Your task to perform on an android device: Open Google Chrome and open the bookmarks view Image 0: 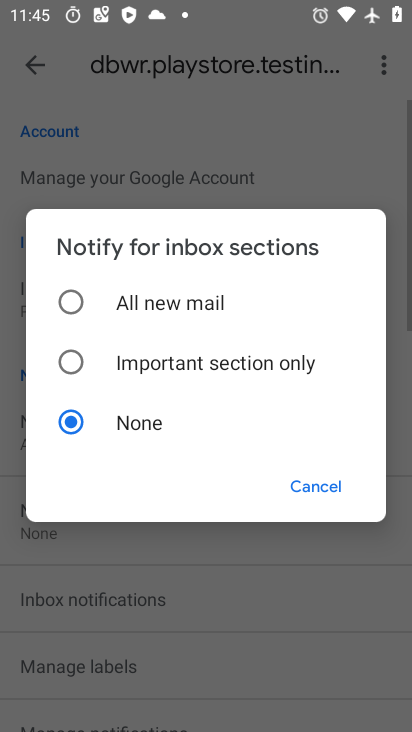
Step 0: click (326, 483)
Your task to perform on an android device: Open Google Chrome and open the bookmarks view Image 1: 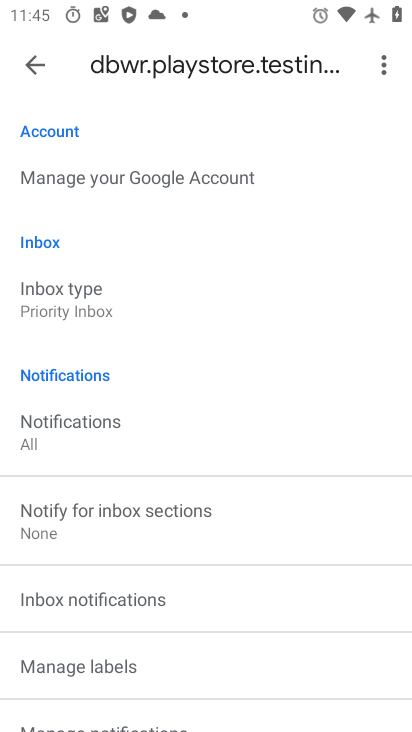
Step 1: click (327, 484)
Your task to perform on an android device: Open Google Chrome and open the bookmarks view Image 2: 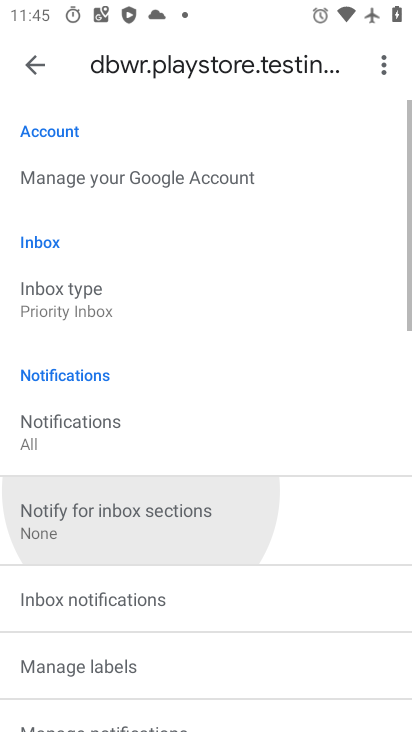
Step 2: click (328, 484)
Your task to perform on an android device: Open Google Chrome and open the bookmarks view Image 3: 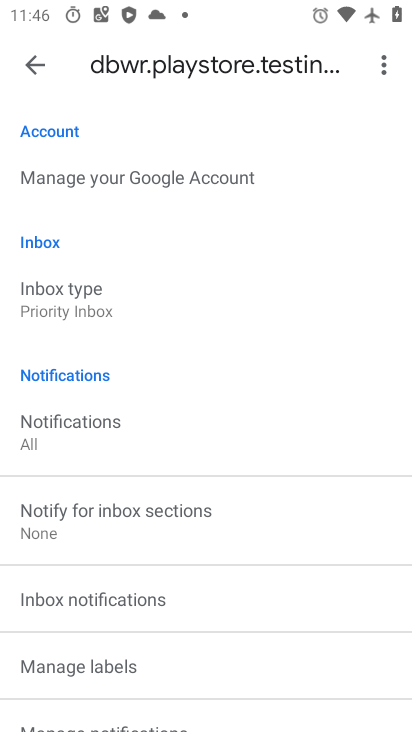
Step 3: drag from (376, 54) to (39, 75)
Your task to perform on an android device: Open Google Chrome and open the bookmarks view Image 4: 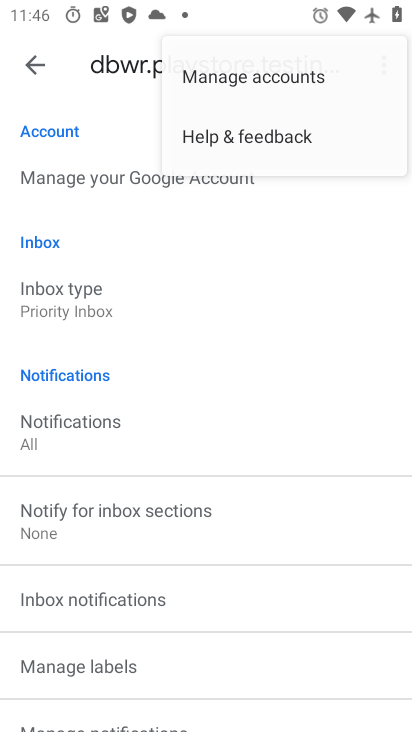
Step 4: click (39, 76)
Your task to perform on an android device: Open Google Chrome and open the bookmarks view Image 5: 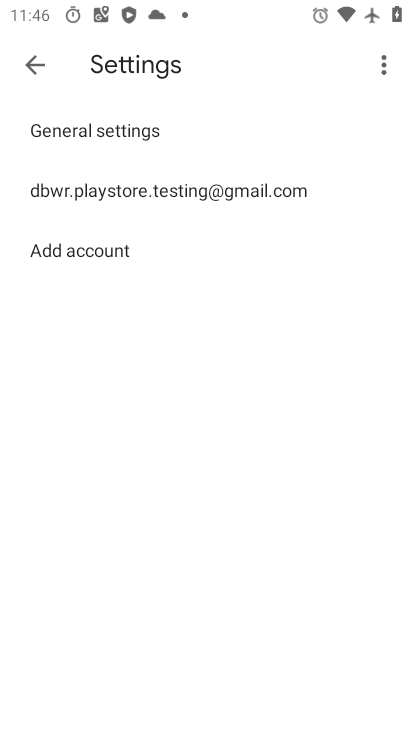
Step 5: drag from (384, 61) to (402, 162)
Your task to perform on an android device: Open Google Chrome and open the bookmarks view Image 6: 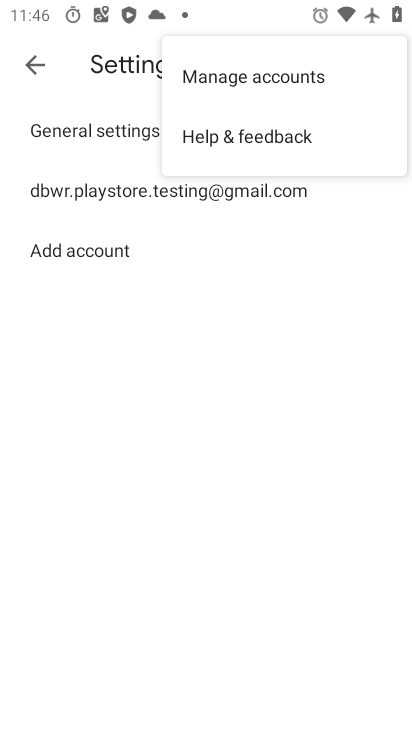
Step 6: press home button
Your task to perform on an android device: Open Google Chrome and open the bookmarks view Image 7: 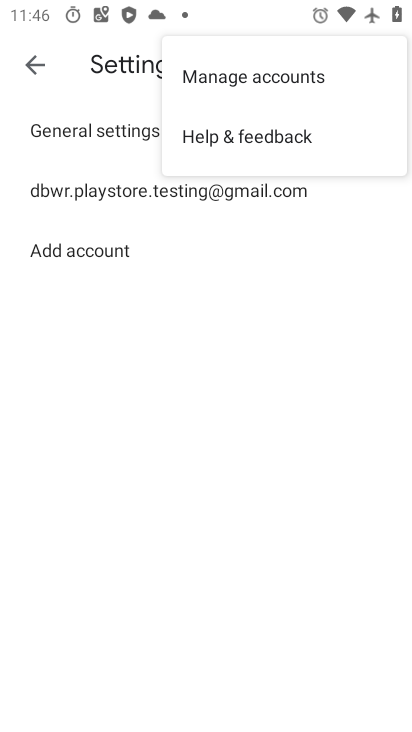
Step 7: press home button
Your task to perform on an android device: Open Google Chrome and open the bookmarks view Image 8: 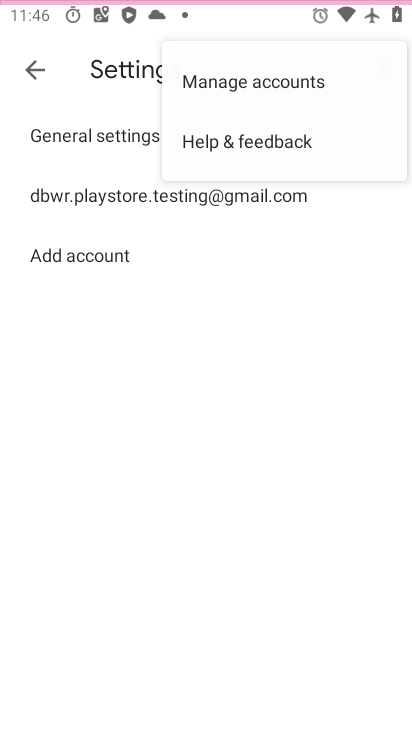
Step 8: click (382, 441)
Your task to perform on an android device: Open Google Chrome and open the bookmarks view Image 9: 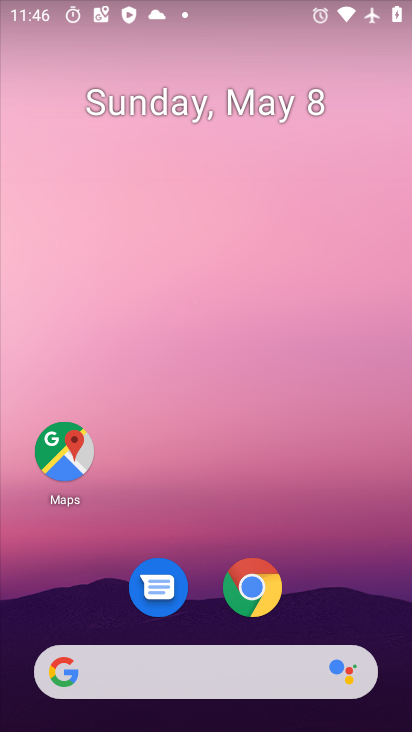
Step 9: drag from (325, 624) to (64, 159)
Your task to perform on an android device: Open Google Chrome and open the bookmarks view Image 10: 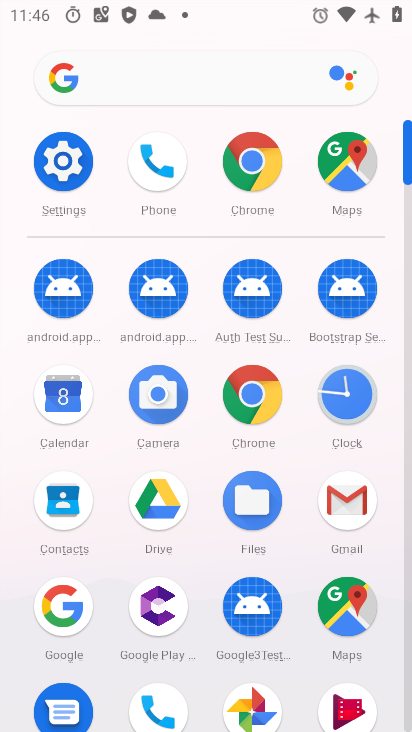
Step 10: click (208, 333)
Your task to perform on an android device: Open Google Chrome and open the bookmarks view Image 11: 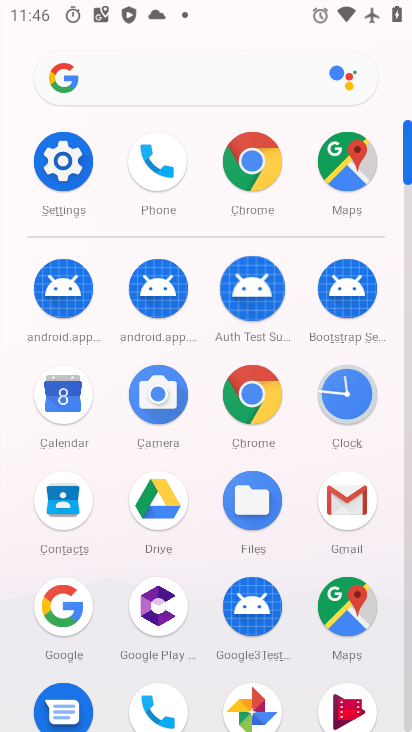
Step 11: click (252, 388)
Your task to perform on an android device: Open Google Chrome and open the bookmarks view Image 12: 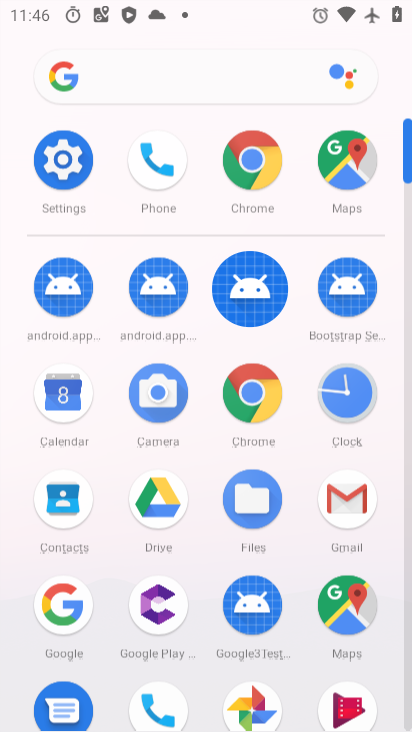
Step 12: click (252, 388)
Your task to perform on an android device: Open Google Chrome and open the bookmarks view Image 13: 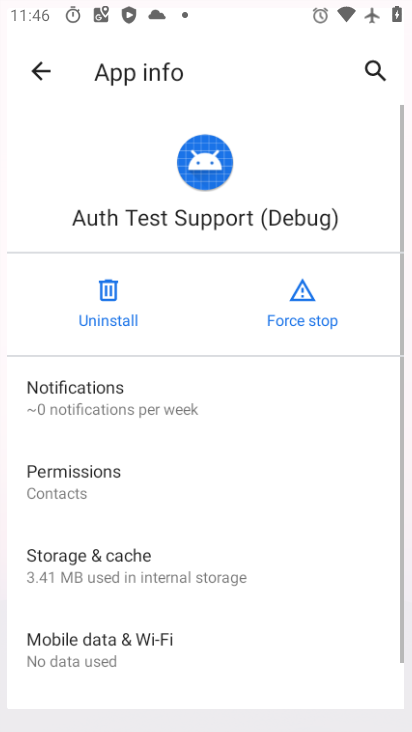
Step 13: click (252, 388)
Your task to perform on an android device: Open Google Chrome and open the bookmarks view Image 14: 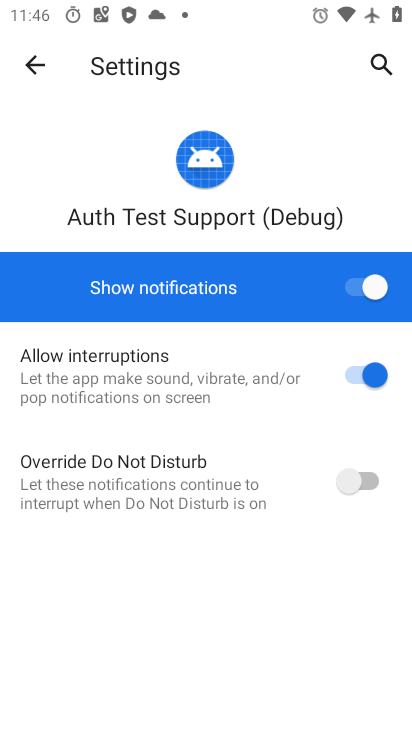
Step 14: click (32, 48)
Your task to perform on an android device: Open Google Chrome and open the bookmarks view Image 15: 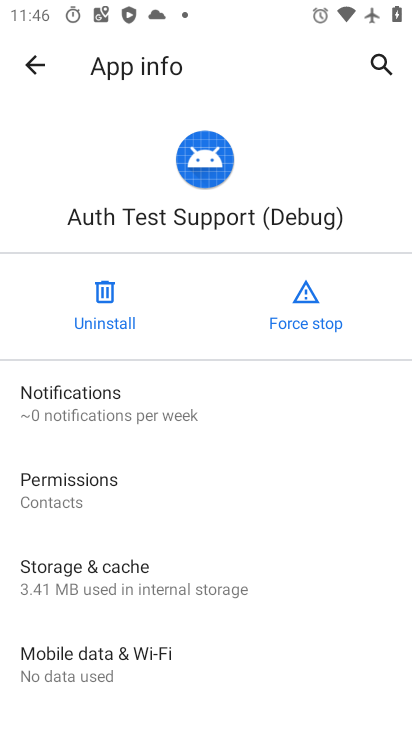
Step 15: click (45, 62)
Your task to perform on an android device: Open Google Chrome and open the bookmarks view Image 16: 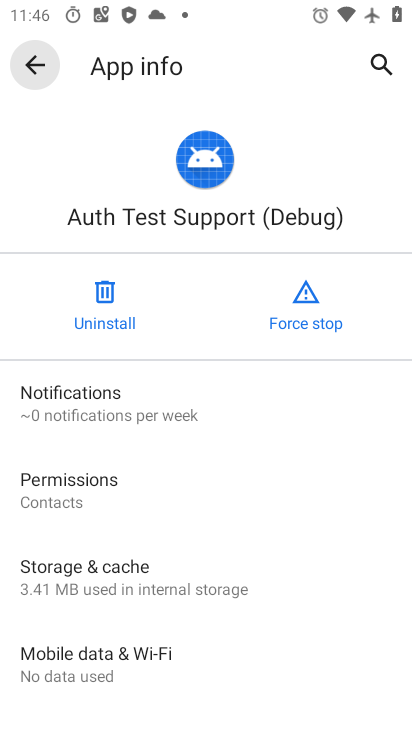
Step 16: click (45, 62)
Your task to perform on an android device: Open Google Chrome and open the bookmarks view Image 17: 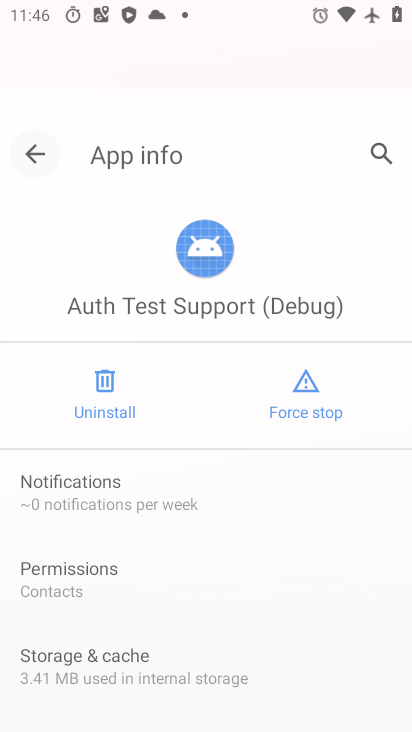
Step 17: click (45, 61)
Your task to perform on an android device: Open Google Chrome and open the bookmarks view Image 18: 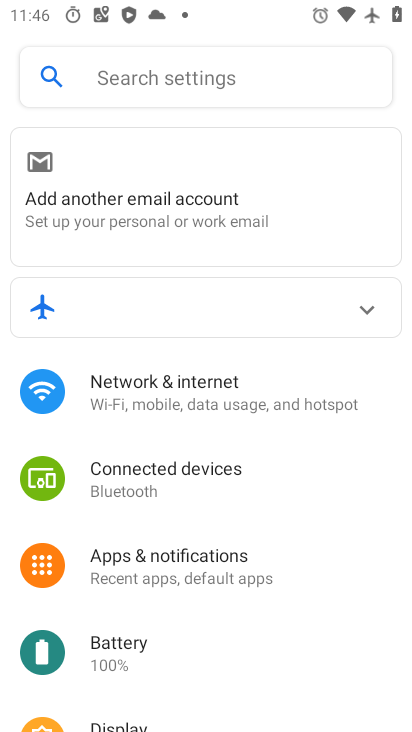
Step 18: press home button
Your task to perform on an android device: Open Google Chrome and open the bookmarks view Image 19: 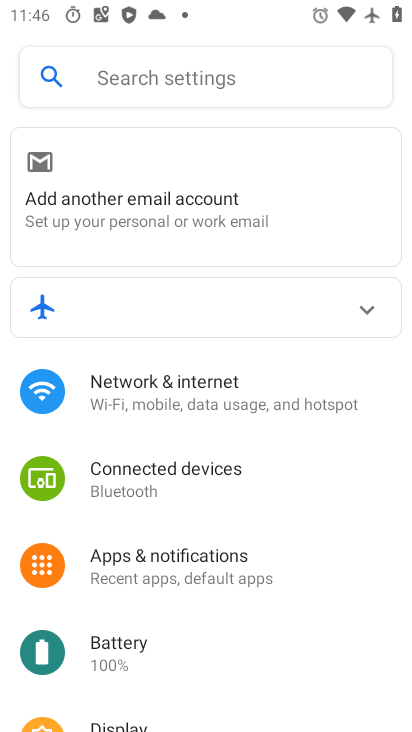
Step 19: press home button
Your task to perform on an android device: Open Google Chrome and open the bookmarks view Image 20: 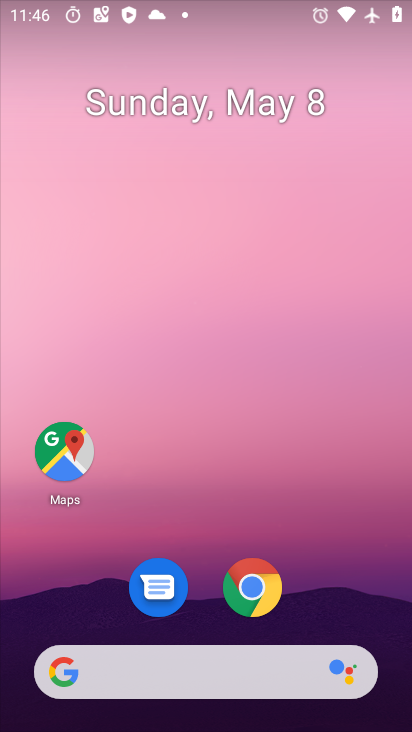
Step 20: drag from (345, 627) to (170, 8)
Your task to perform on an android device: Open Google Chrome and open the bookmarks view Image 21: 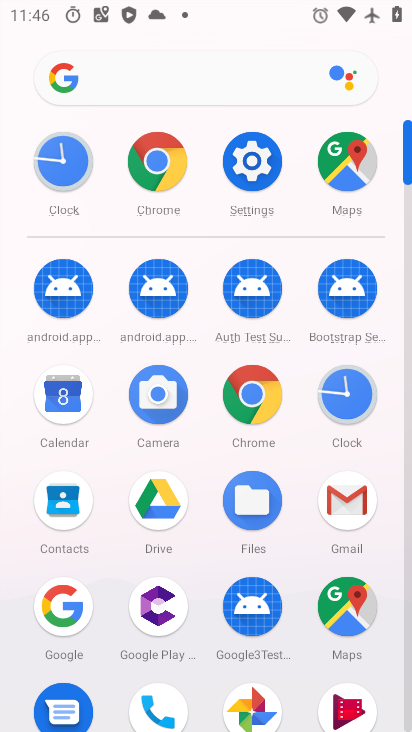
Step 21: click (162, 167)
Your task to perform on an android device: Open Google Chrome and open the bookmarks view Image 22: 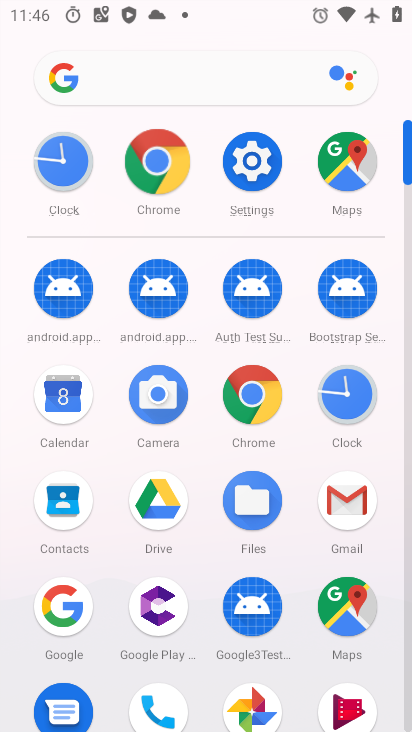
Step 22: click (163, 164)
Your task to perform on an android device: Open Google Chrome and open the bookmarks view Image 23: 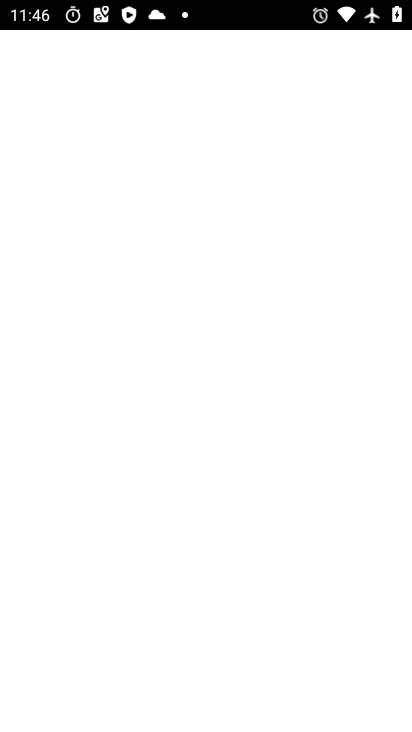
Step 23: click (163, 164)
Your task to perform on an android device: Open Google Chrome and open the bookmarks view Image 24: 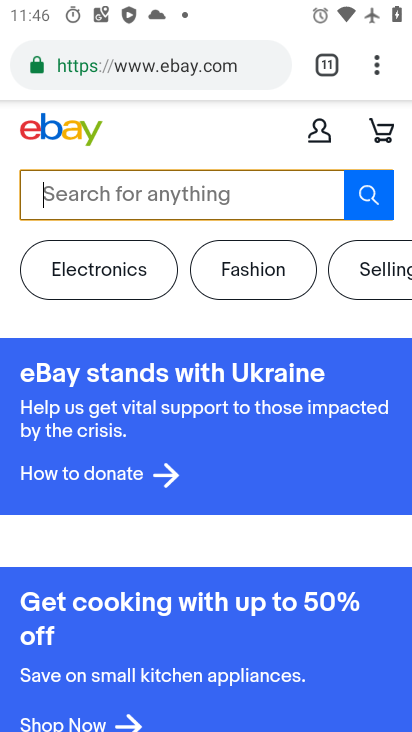
Step 24: drag from (378, 65) to (138, 255)
Your task to perform on an android device: Open Google Chrome and open the bookmarks view Image 25: 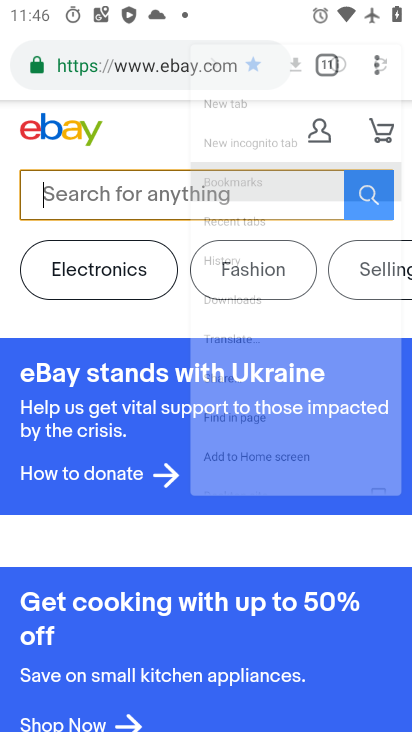
Step 25: click (138, 255)
Your task to perform on an android device: Open Google Chrome and open the bookmarks view Image 26: 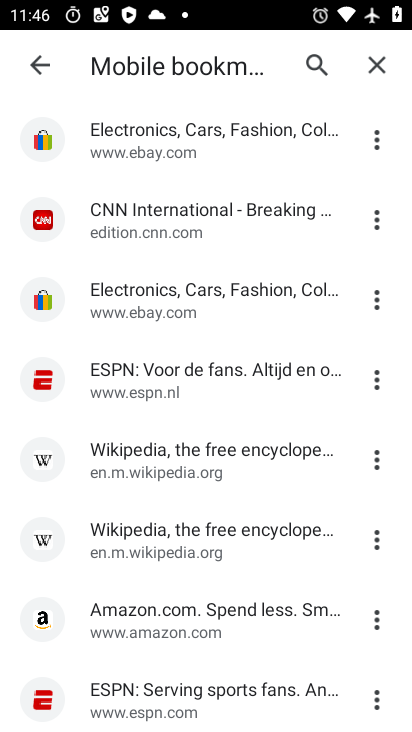
Step 26: task complete